Your task to perform on an android device: visit the assistant section in the google photos Image 0: 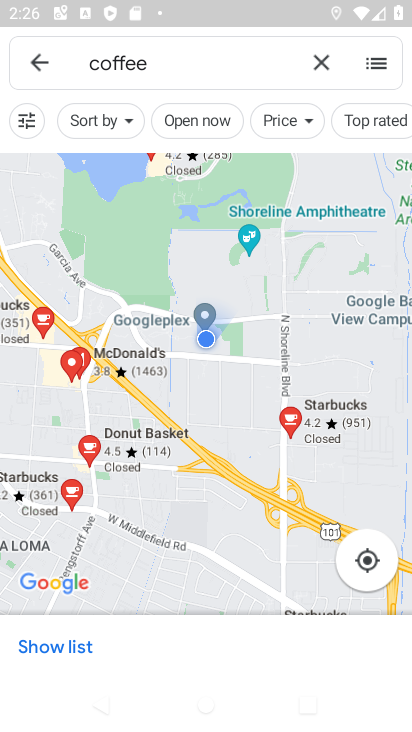
Step 0: press home button
Your task to perform on an android device: visit the assistant section in the google photos Image 1: 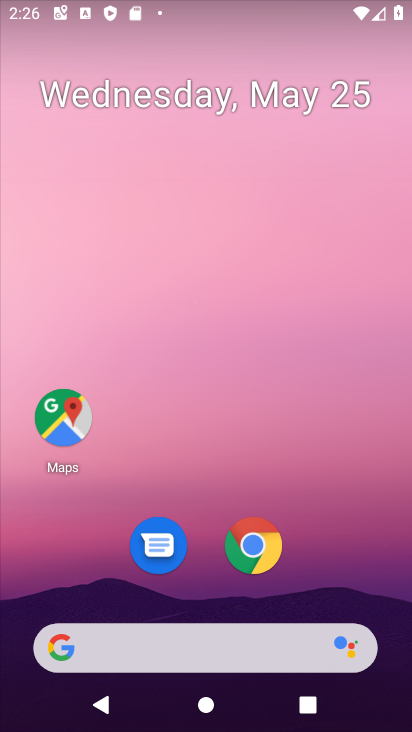
Step 1: drag from (369, 565) to (325, 144)
Your task to perform on an android device: visit the assistant section in the google photos Image 2: 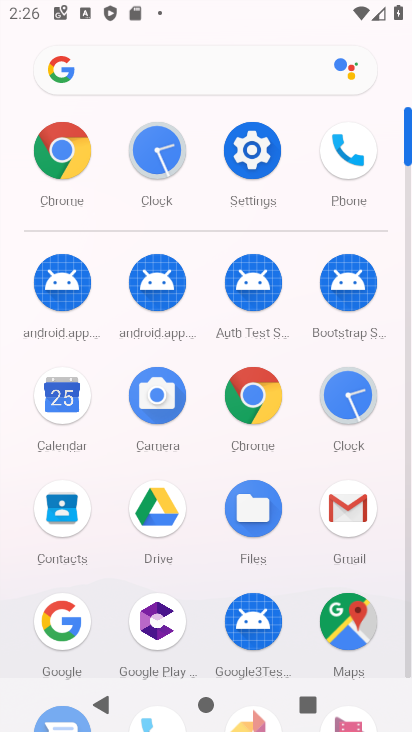
Step 2: click (409, 490)
Your task to perform on an android device: visit the assistant section in the google photos Image 3: 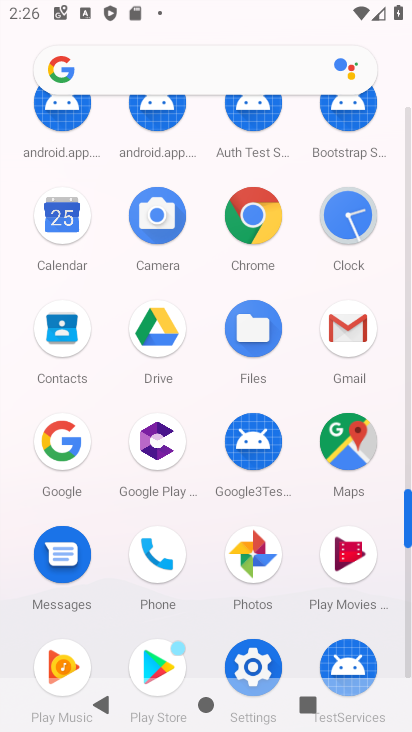
Step 3: click (265, 554)
Your task to perform on an android device: visit the assistant section in the google photos Image 4: 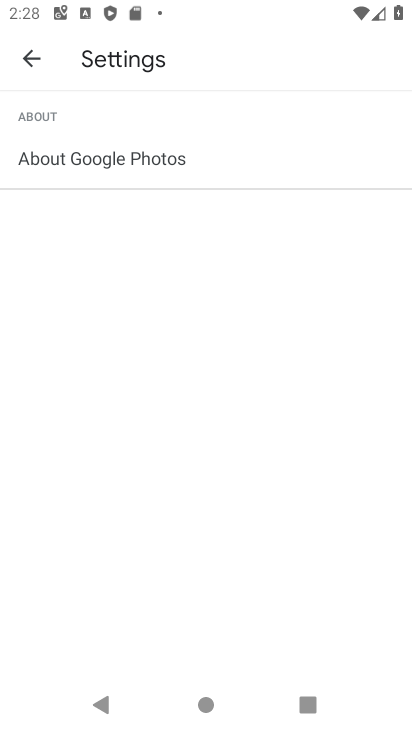
Step 4: task complete